Your task to perform on an android device: snooze an email in the gmail app Image 0: 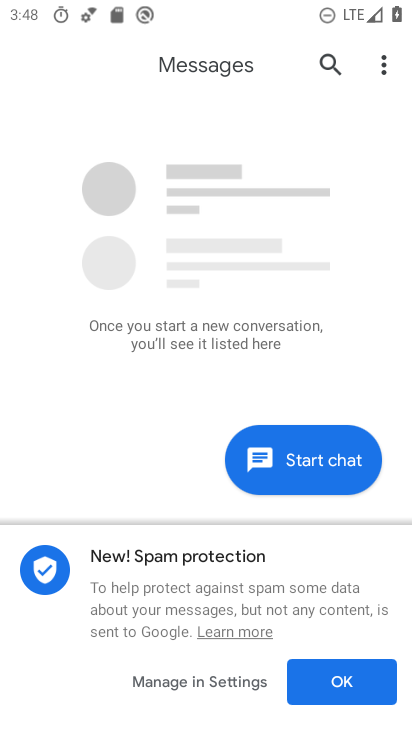
Step 0: press home button
Your task to perform on an android device: snooze an email in the gmail app Image 1: 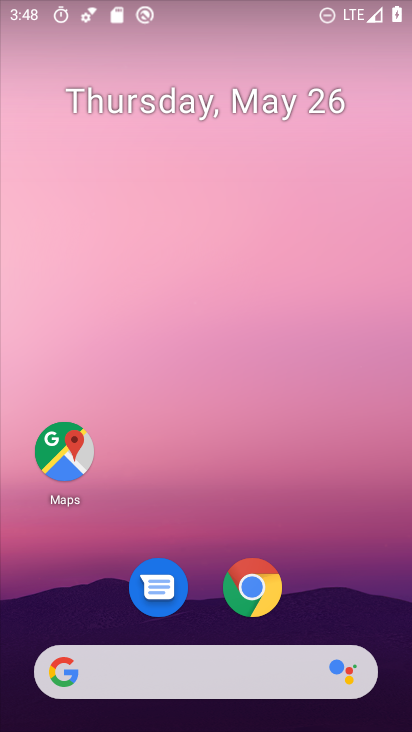
Step 1: drag from (343, 554) to (297, 131)
Your task to perform on an android device: snooze an email in the gmail app Image 2: 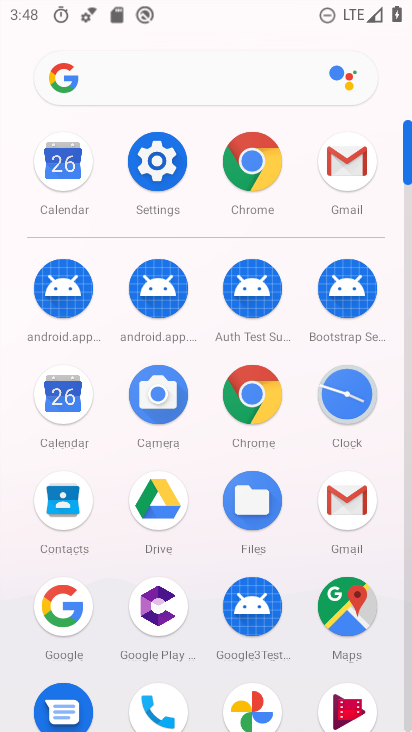
Step 2: click (344, 163)
Your task to perform on an android device: snooze an email in the gmail app Image 3: 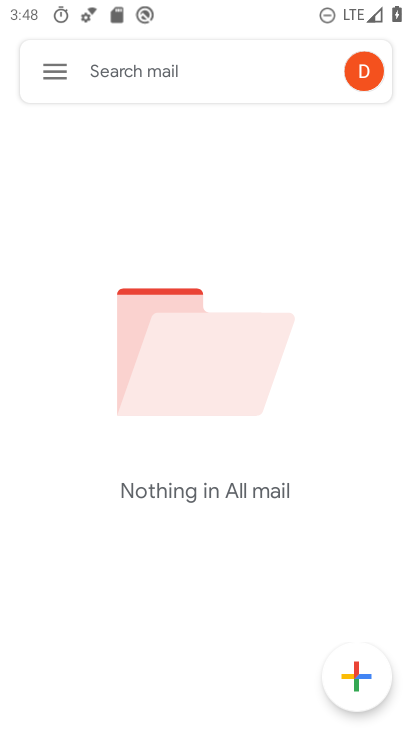
Step 3: click (52, 76)
Your task to perform on an android device: snooze an email in the gmail app Image 4: 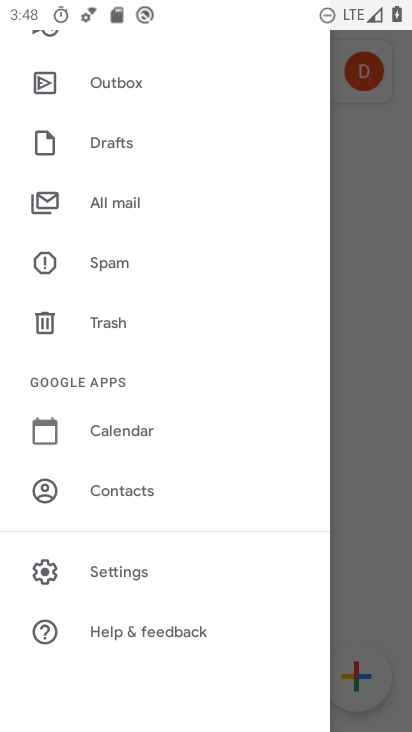
Step 4: drag from (162, 275) to (160, 620)
Your task to perform on an android device: snooze an email in the gmail app Image 5: 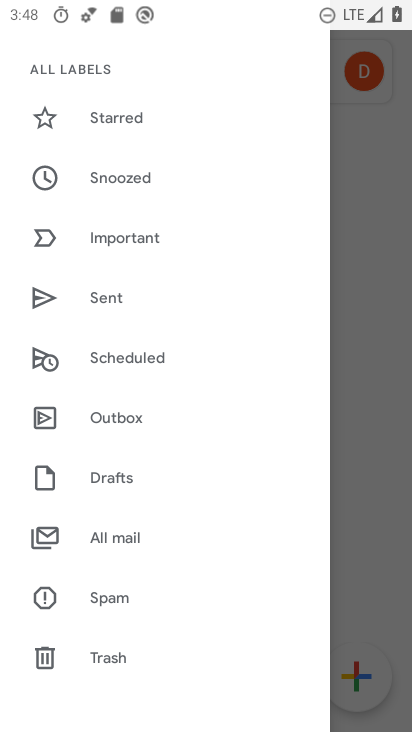
Step 5: click (97, 526)
Your task to perform on an android device: snooze an email in the gmail app Image 6: 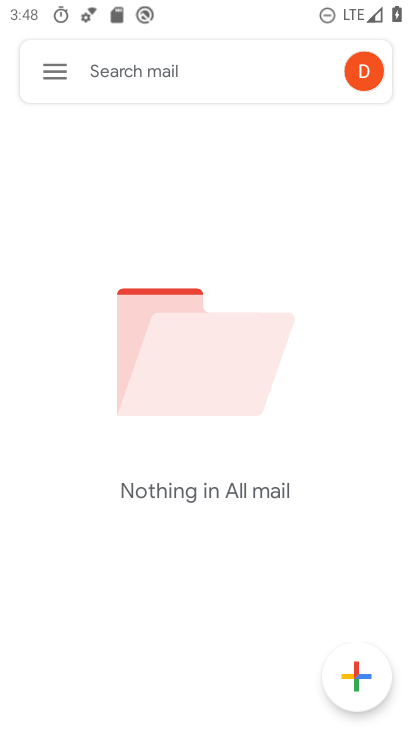
Step 6: task complete